Your task to perform on an android device: Show me the alarms in the clock app Image 0: 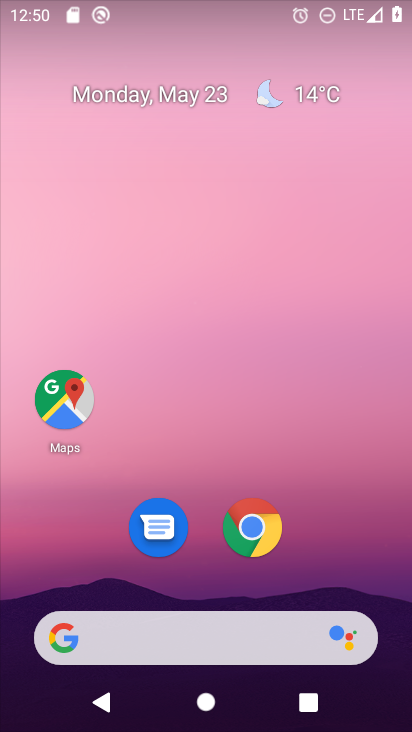
Step 0: drag from (351, 514) to (331, 66)
Your task to perform on an android device: Show me the alarms in the clock app Image 1: 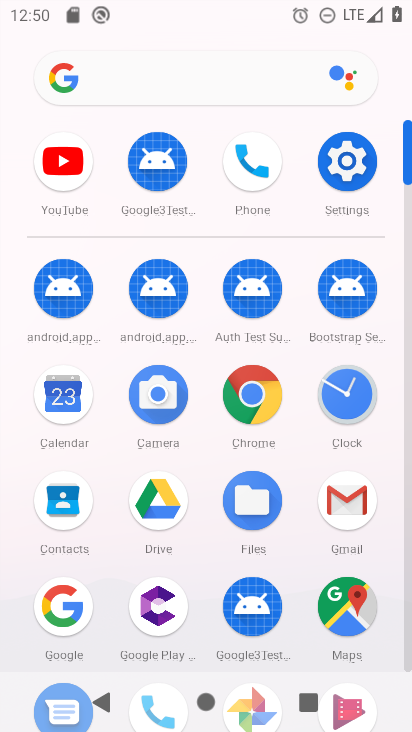
Step 1: click (379, 422)
Your task to perform on an android device: Show me the alarms in the clock app Image 2: 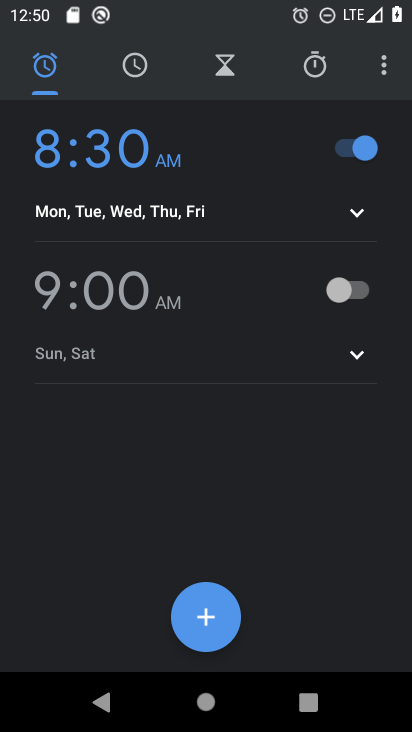
Step 2: task complete